Your task to perform on an android device: allow cookies in the chrome app Image 0: 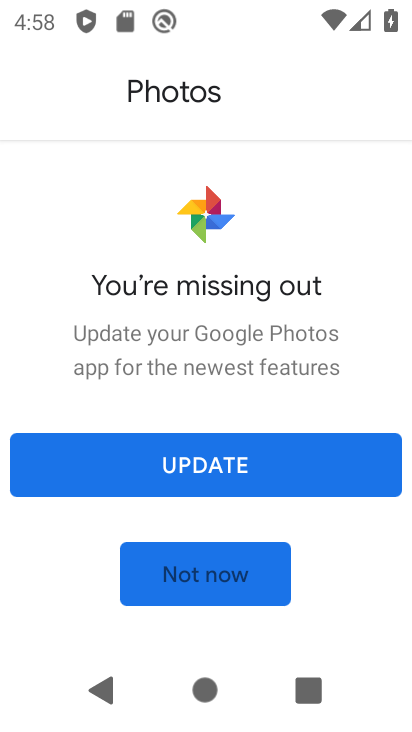
Step 0: press home button
Your task to perform on an android device: allow cookies in the chrome app Image 1: 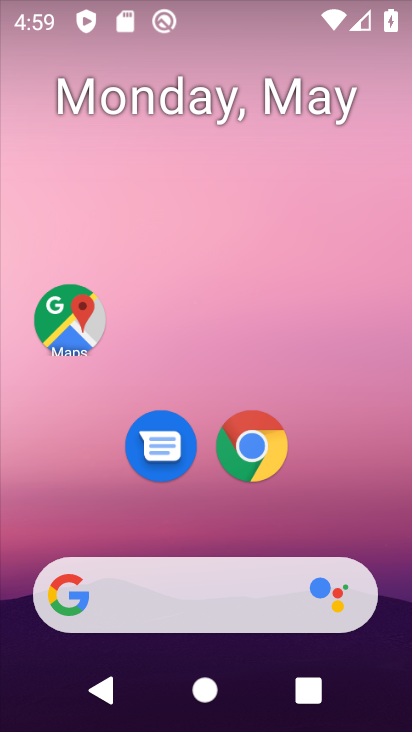
Step 1: click (251, 449)
Your task to perform on an android device: allow cookies in the chrome app Image 2: 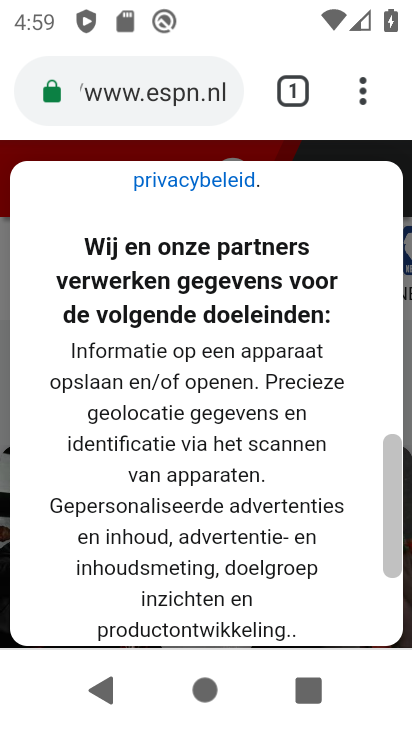
Step 2: click (360, 93)
Your task to perform on an android device: allow cookies in the chrome app Image 3: 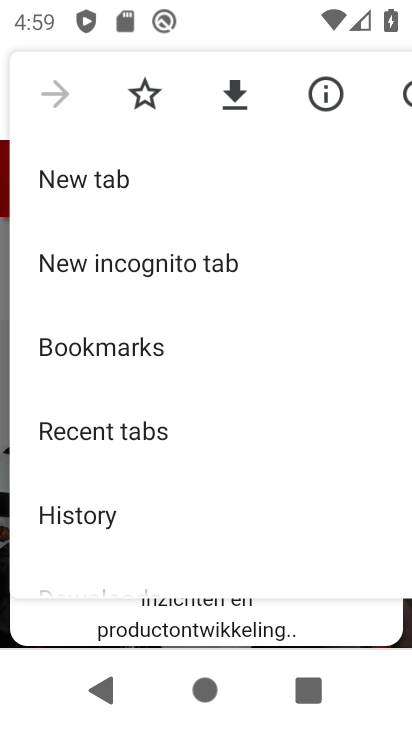
Step 3: drag from (251, 413) to (226, 135)
Your task to perform on an android device: allow cookies in the chrome app Image 4: 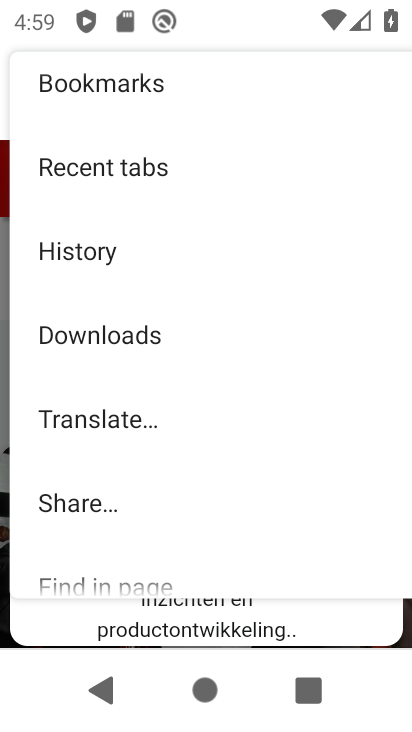
Step 4: drag from (209, 381) to (209, 245)
Your task to perform on an android device: allow cookies in the chrome app Image 5: 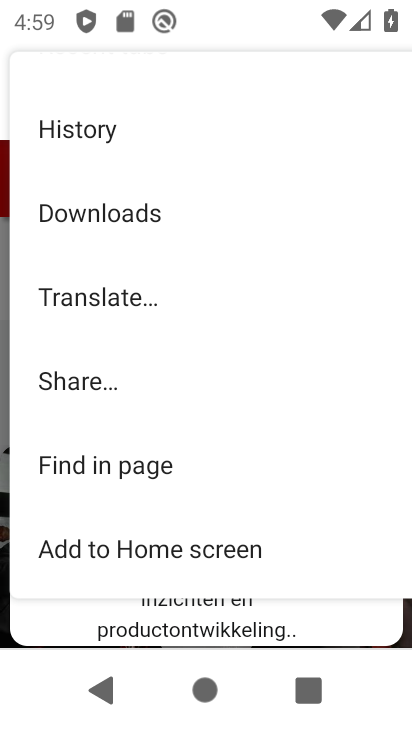
Step 5: drag from (213, 398) to (202, 121)
Your task to perform on an android device: allow cookies in the chrome app Image 6: 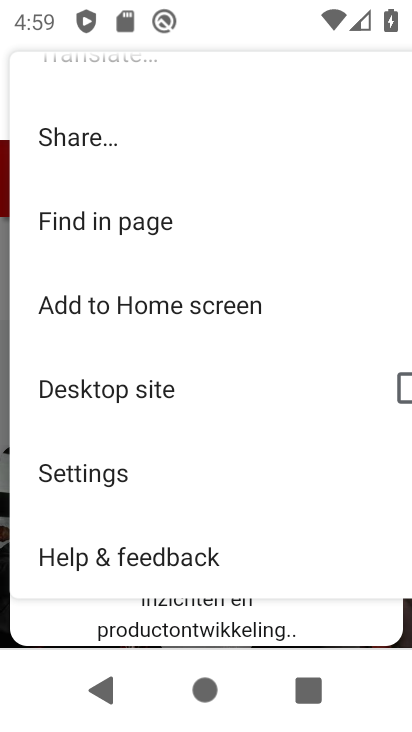
Step 6: click (85, 460)
Your task to perform on an android device: allow cookies in the chrome app Image 7: 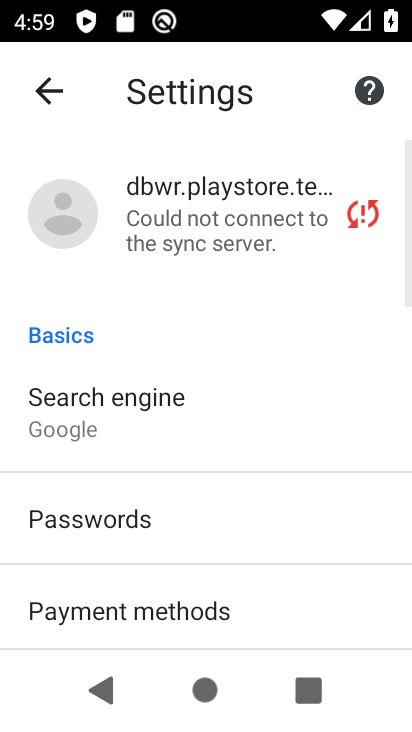
Step 7: drag from (187, 381) to (165, 229)
Your task to perform on an android device: allow cookies in the chrome app Image 8: 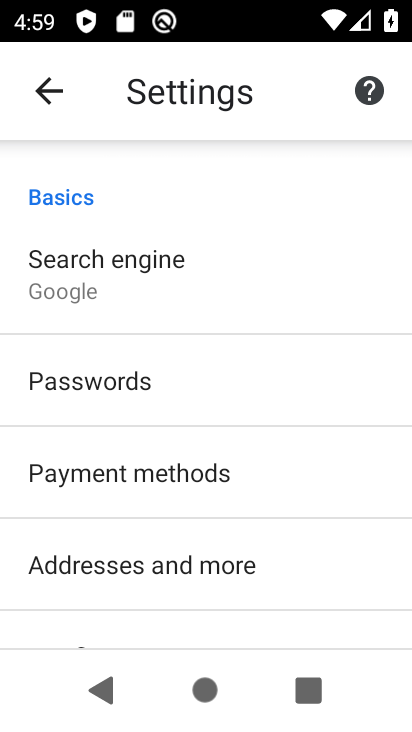
Step 8: drag from (263, 442) to (250, 169)
Your task to perform on an android device: allow cookies in the chrome app Image 9: 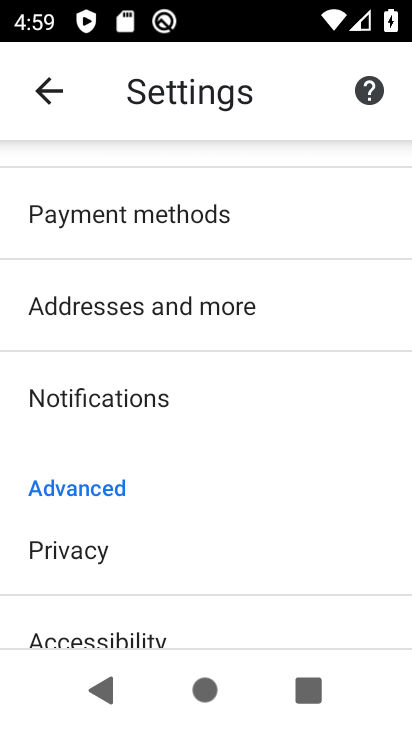
Step 9: drag from (275, 534) to (255, 219)
Your task to perform on an android device: allow cookies in the chrome app Image 10: 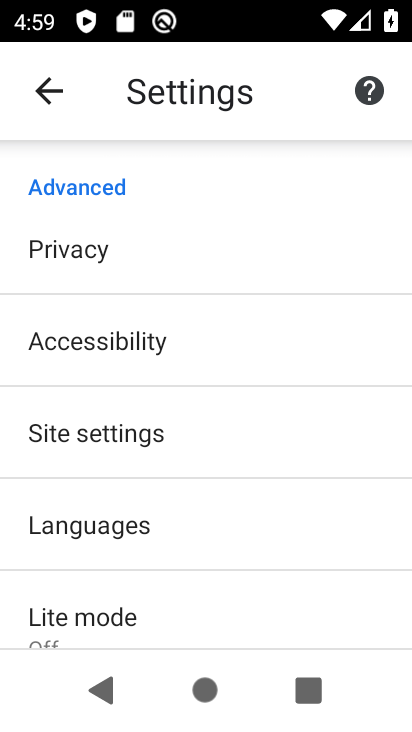
Step 10: click (94, 437)
Your task to perform on an android device: allow cookies in the chrome app Image 11: 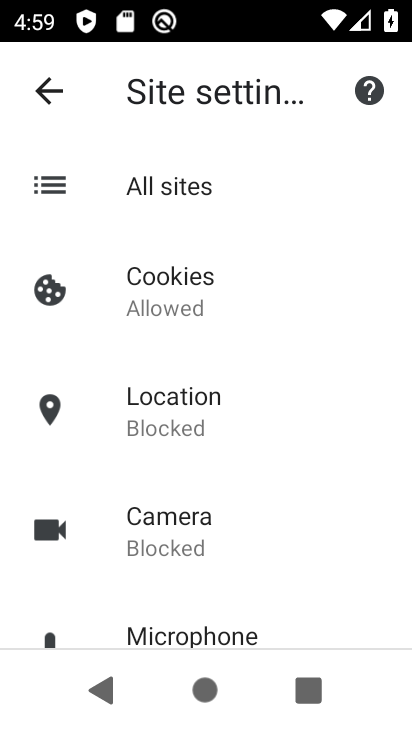
Step 11: click (188, 288)
Your task to perform on an android device: allow cookies in the chrome app Image 12: 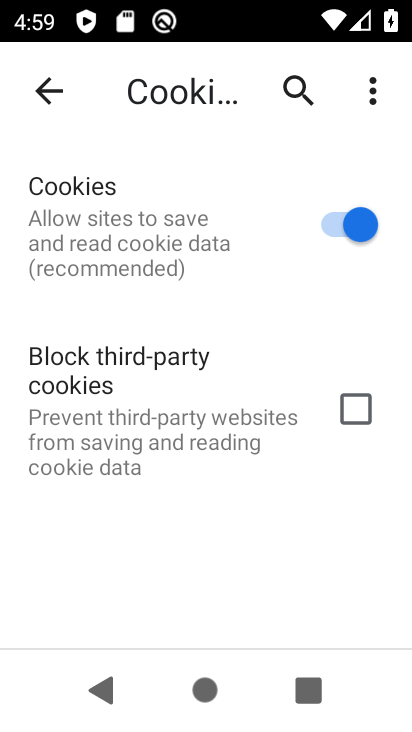
Step 12: task complete